Your task to perform on an android device: show emergency info Image 0: 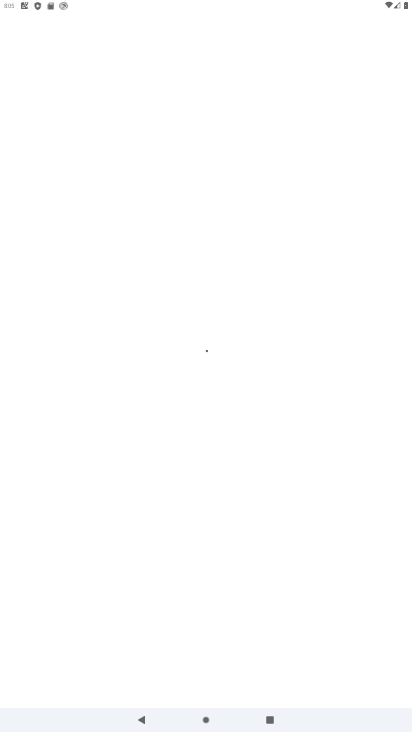
Step 0: press home button
Your task to perform on an android device: show emergency info Image 1: 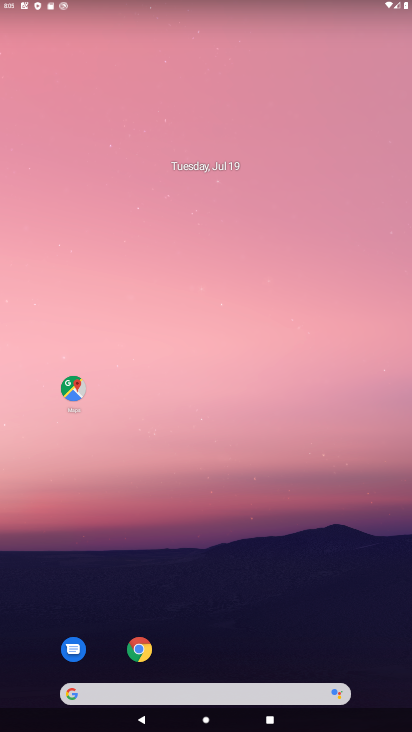
Step 1: drag from (203, 626) to (221, 136)
Your task to perform on an android device: show emergency info Image 2: 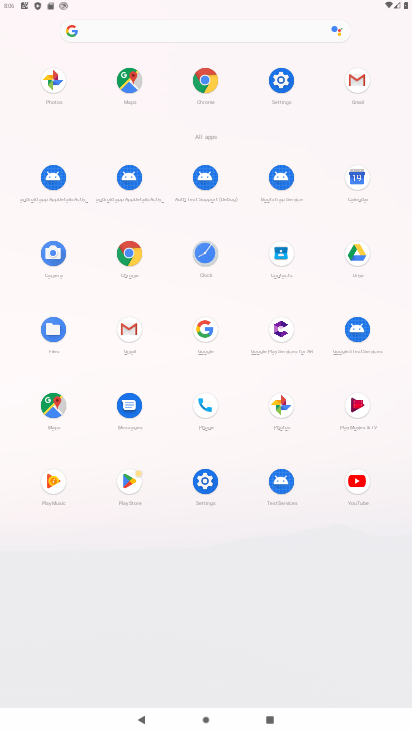
Step 2: click (198, 465)
Your task to perform on an android device: show emergency info Image 3: 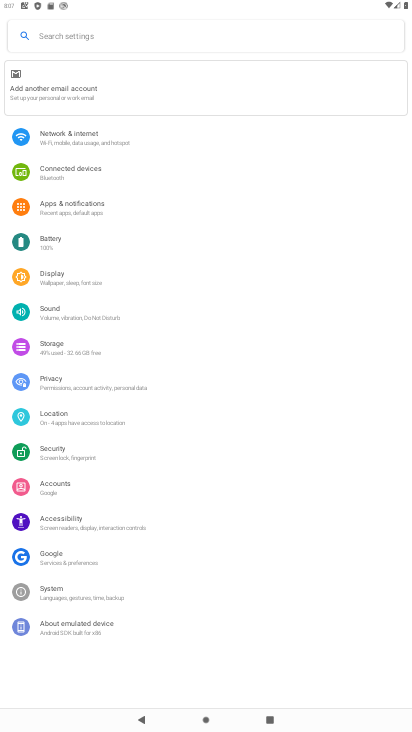
Step 3: click (67, 622)
Your task to perform on an android device: show emergency info Image 4: 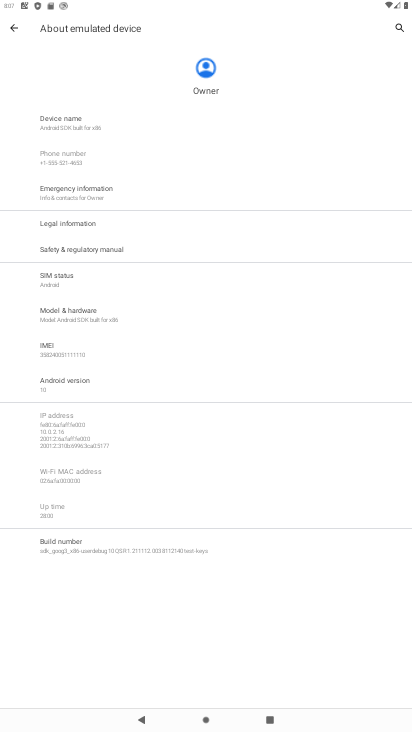
Step 4: click (85, 194)
Your task to perform on an android device: show emergency info Image 5: 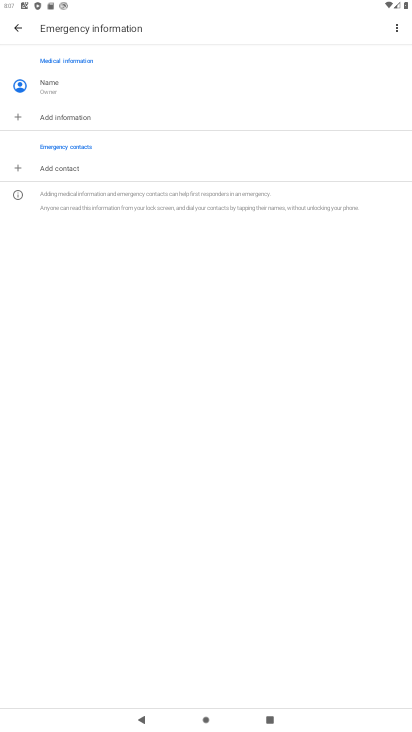
Step 5: task complete